Your task to perform on an android device: Add "panasonic triple a" to the cart on ebay, then select checkout. Image 0: 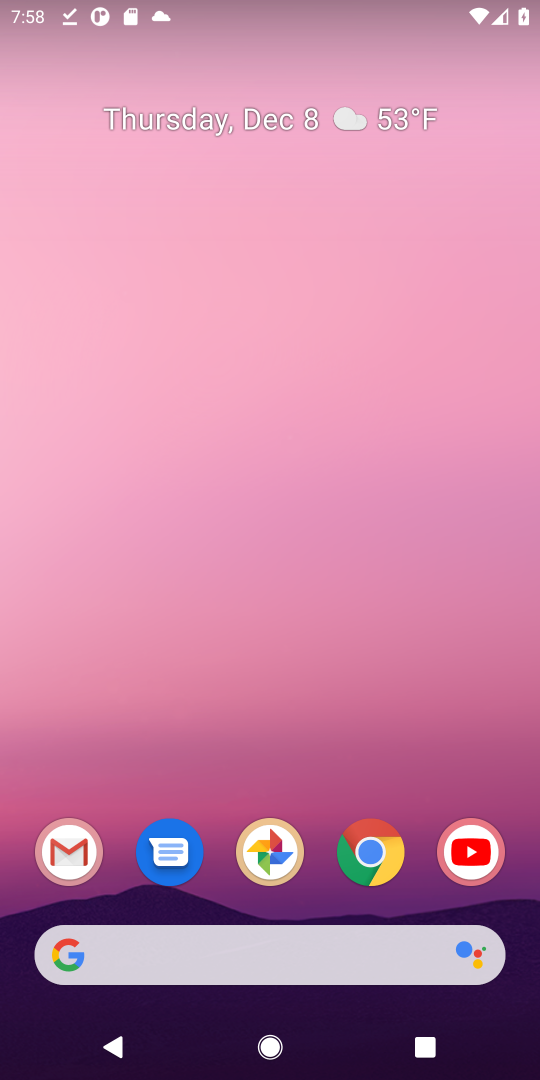
Step 0: click (321, 944)
Your task to perform on an android device: Add "panasonic triple a" to the cart on ebay, then select checkout. Image 1: 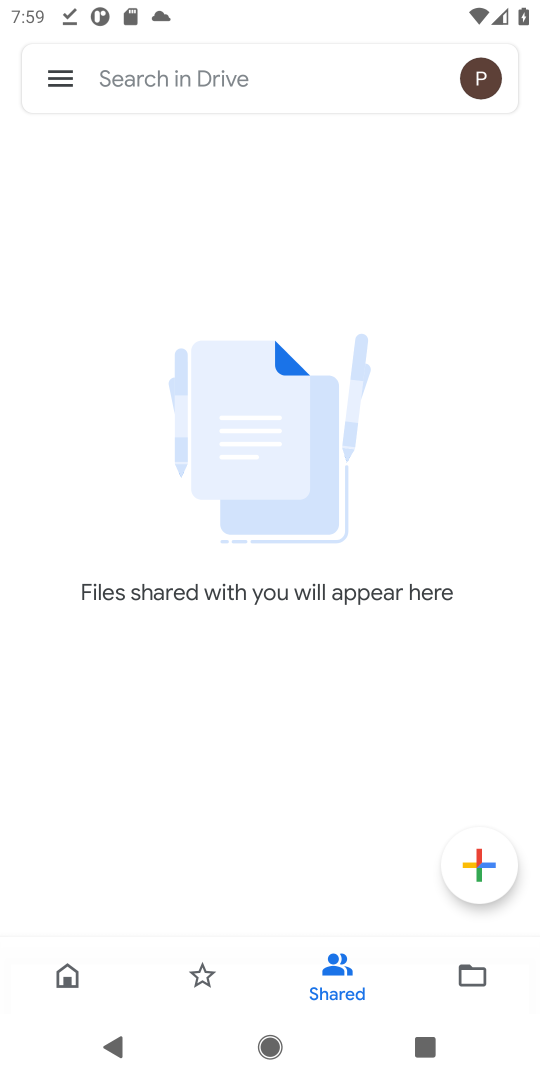
Step 1: press home button
Your task to perform on an android device: Add "panasonic triple a" to the cart on ebay, then select checkout. Image 2: 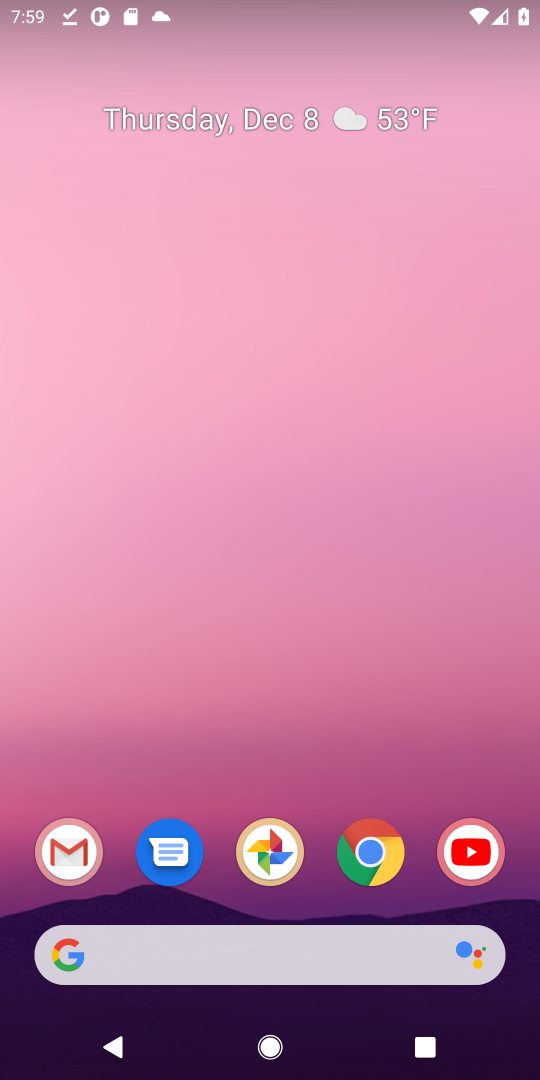
Step 2: click (216, 973)
Your task to perform on an android device: Add "panasonic triple a" to the cart on ebay, then select checkout. Image 3: 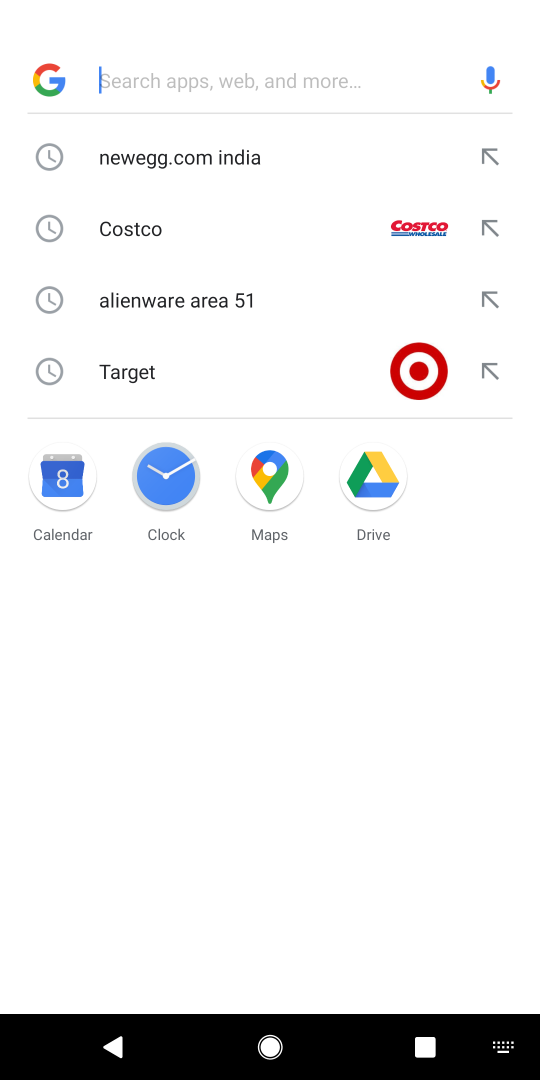
Step 3: type "panasonic triple a"
Your task to perform on an android device: Add "panasonic triple a" to the cart on ebay, then select checkout. Image 4: 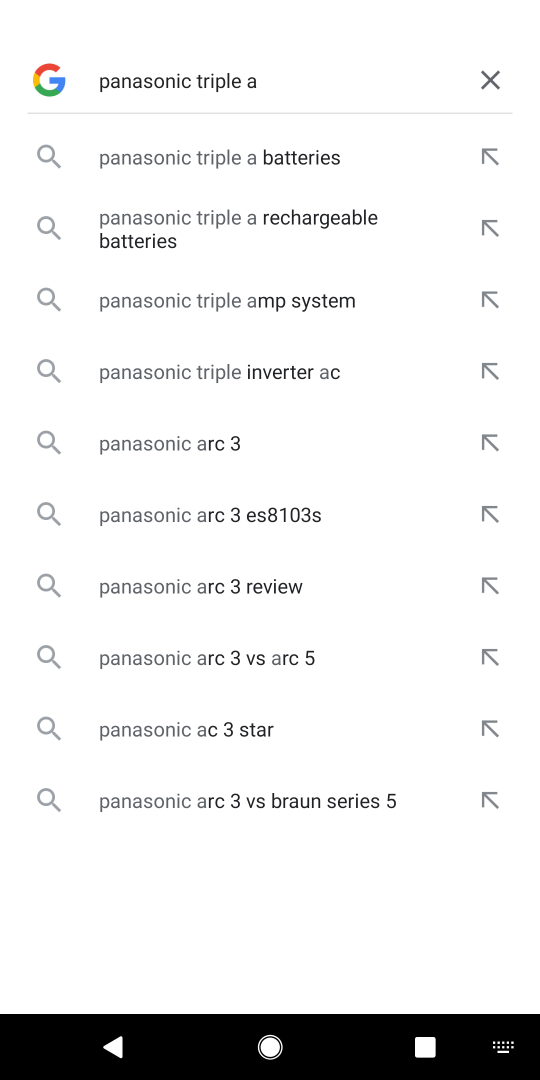
Step 4: click (180, 165)
Your task to perform on an android device: Add "panasonic triple a" to the cart on ebay, then select checkout. Image 5: 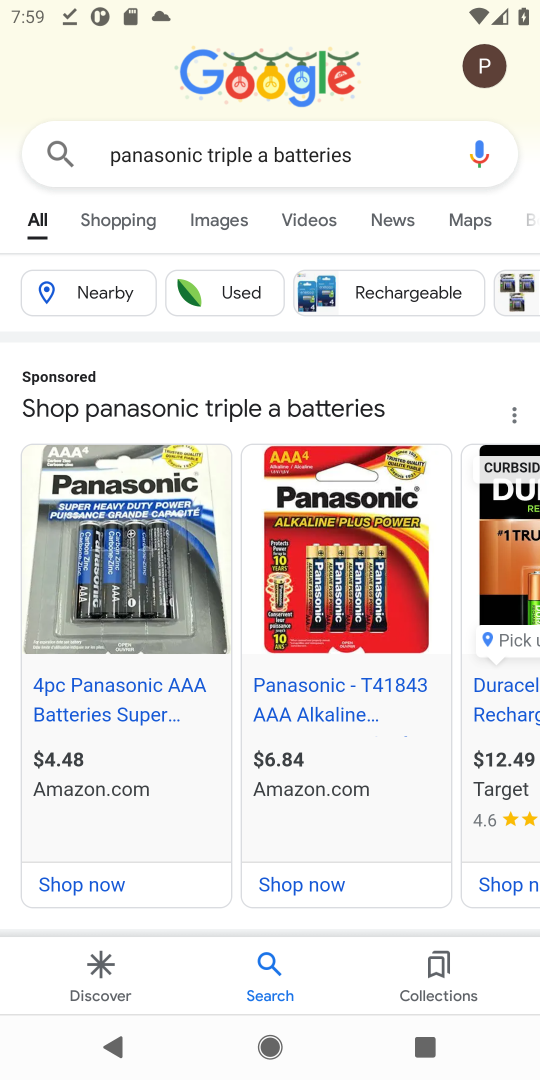
Step 5: click (158, 722)
Your task to perform on an android device: Add "panasonic triple a" to the cart on ebay, then select checkout. Image 6: 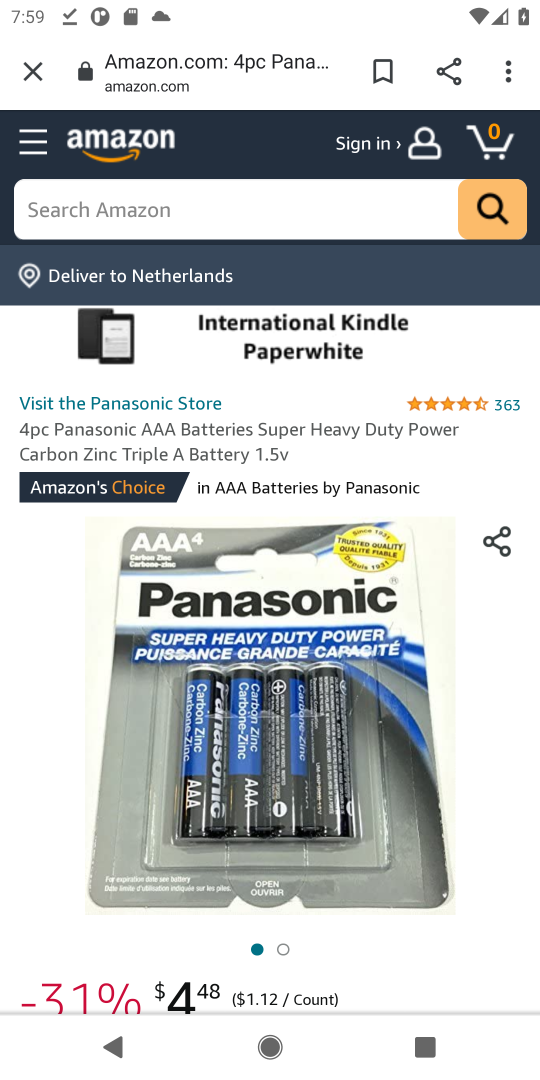
Step 6: drag from (264, 872) to (237, 123)
Your task to perform on an android device: Add "panasonic triple a" to the cart on ebay, then select checkout. Image 7: 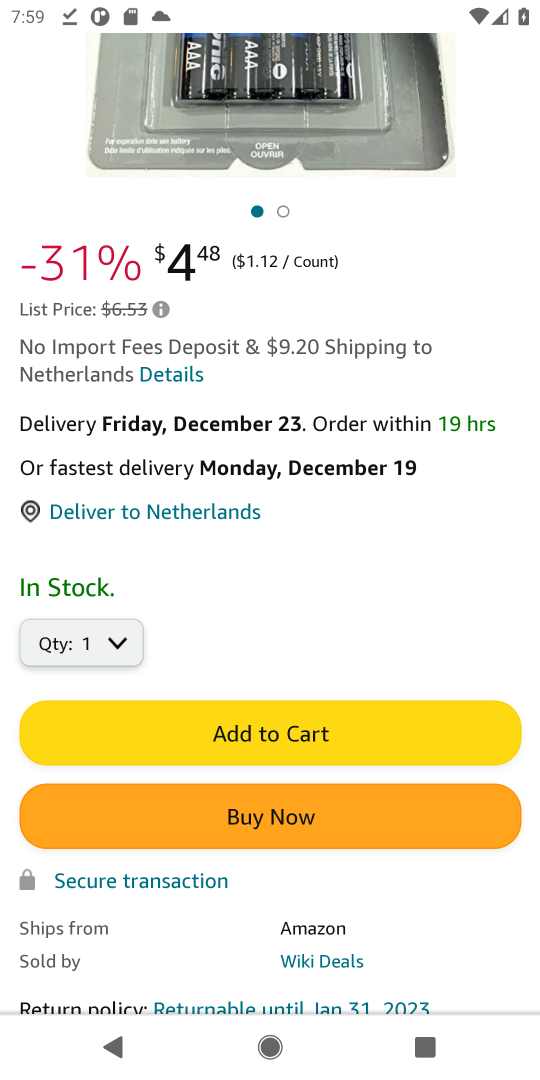
Step 7: click (252, 735)
Your task to perform on an android device: Add "panasonic triple a" to the cart on ebay, then select checkout. Image 8: 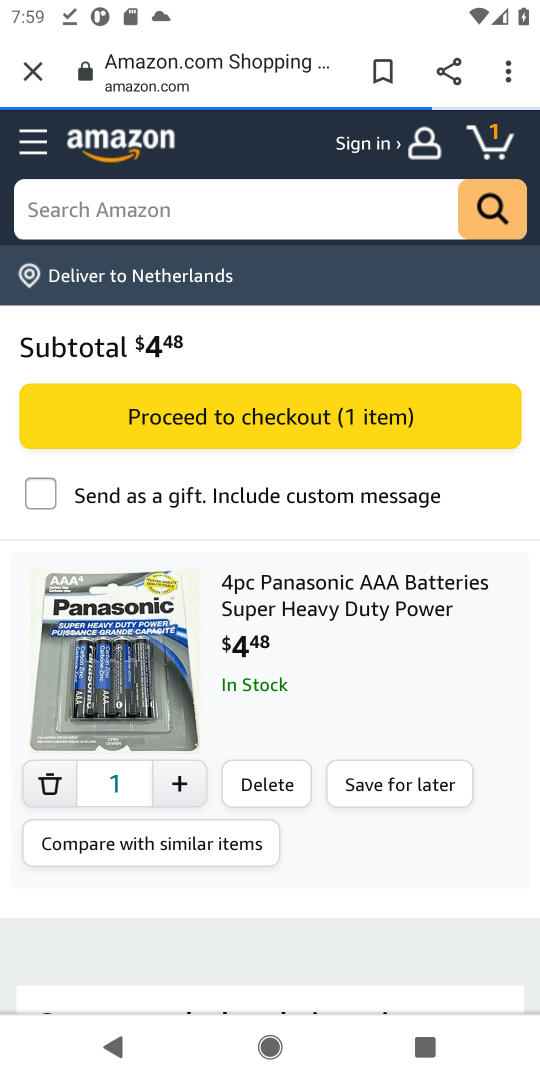
Step 8: task complete